Your task to perform on an android device: toggle airplane mode Image 0: 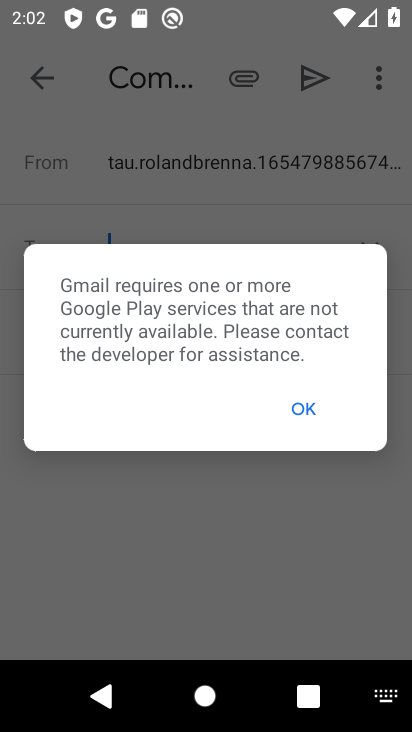
Step 0: press back button
Your task to perform on an android device: toggle airplane mode Image 1: 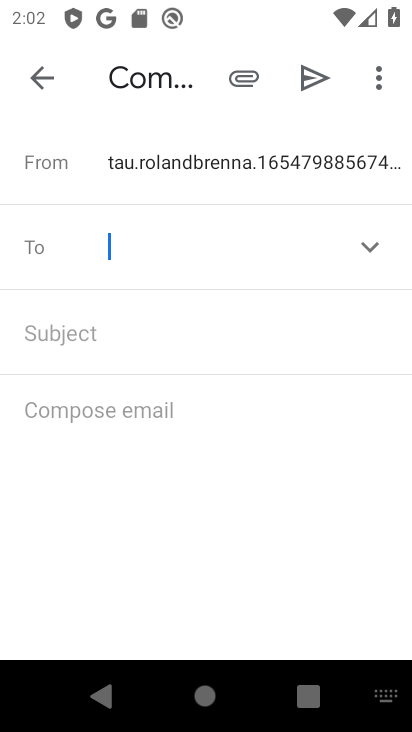
Step 1: press back button
Your task to perform on an android device: toggle airplane mode Image 2: 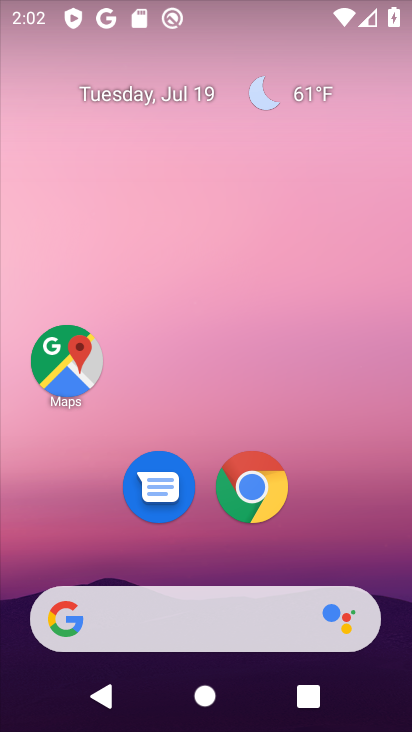
Step 2: drag from (294, 7) to (213, 498)
Your task to perform on an android device: toggle airplane mode Image 3: 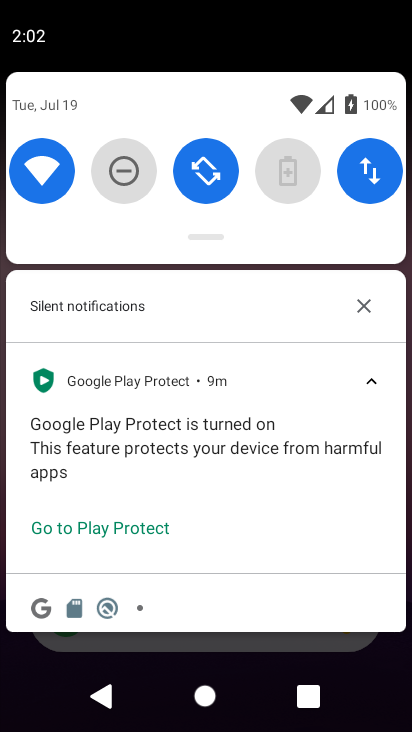
Step 3: drag from (197, 218) to (242, 635)
Your task to perform on an android device: toggle airplane mode Image 4: 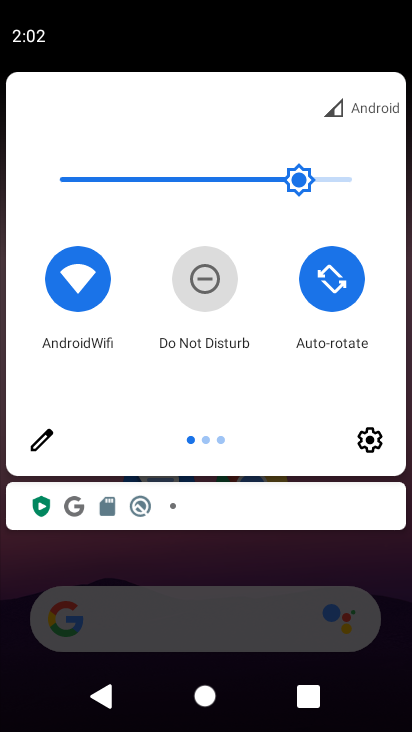
Step 4: drag from (324, 281) to (4, 303)
Your task to perform on an android device: toggle airplane mode Image 5: 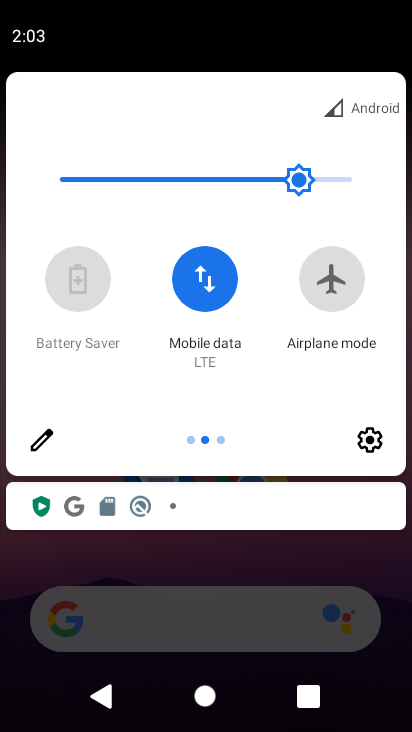
Step 5: click (352, 284)
Your task to perform on an android device: toggle airplane mode Image 6: 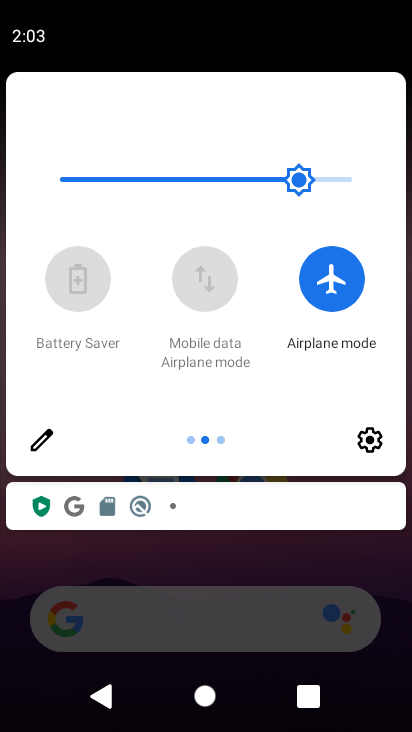
Step 6: task complete